Your task to perform on an android device: turn on data saver in the chrome app Image 0: 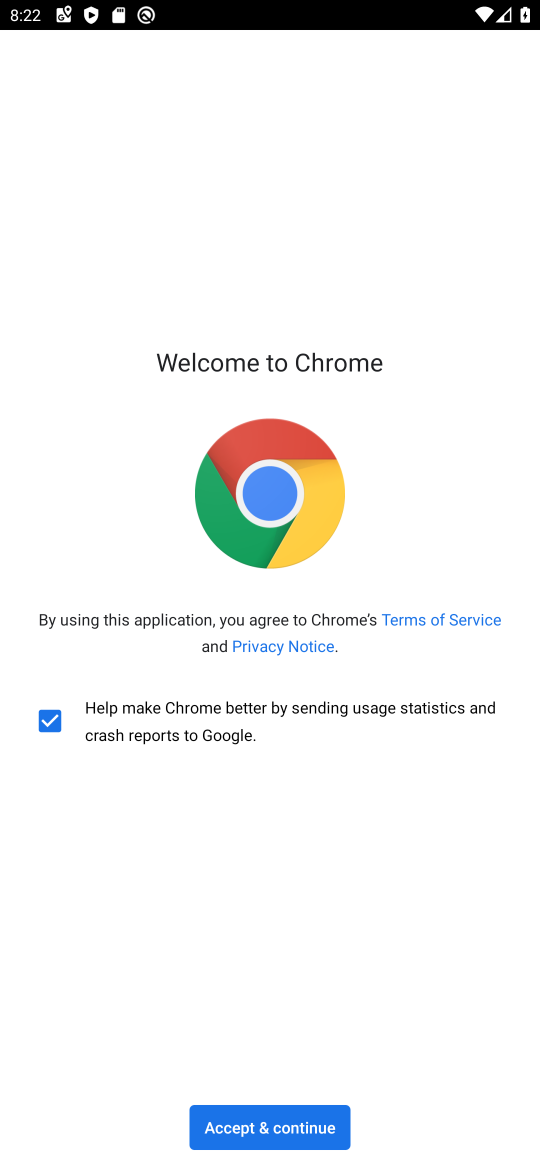
Step 0: press home button
Your task to perform on an android device: turn on data saver in the chrome app Image 1: 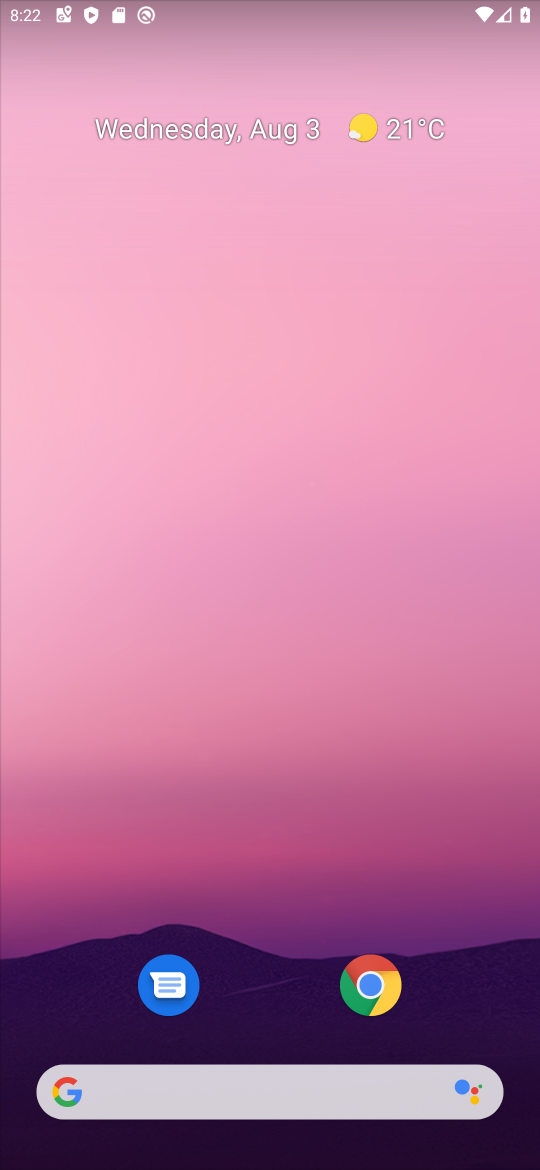
Step 1: click (347, 970)
Your task to perform on an android device: turn on data saver in the chrome app Image 2: 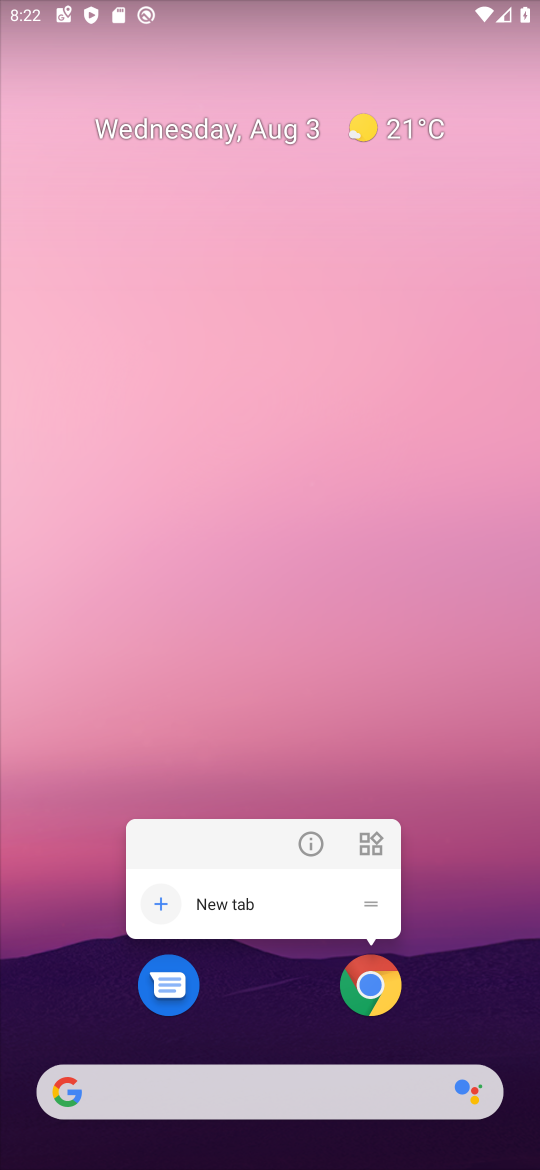
Step 2: click (349, 996)
Your task to perform on an android device: turn on data saver in the chrome app Image 3: 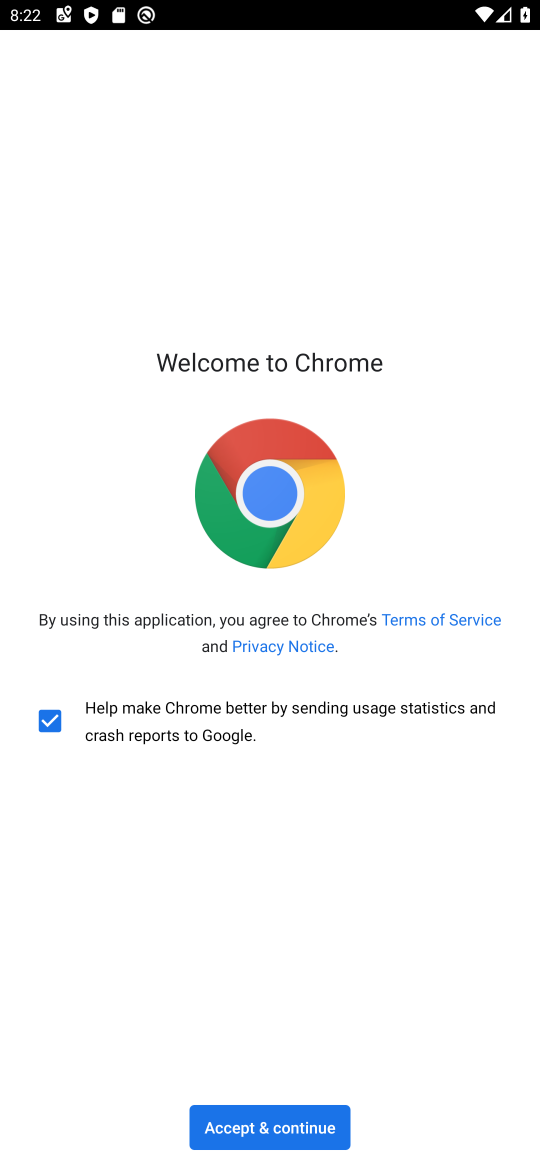
Step 3: click (302, 1131)
Your task to perform on an android device: turn on data saver in the chrome app Image 4: 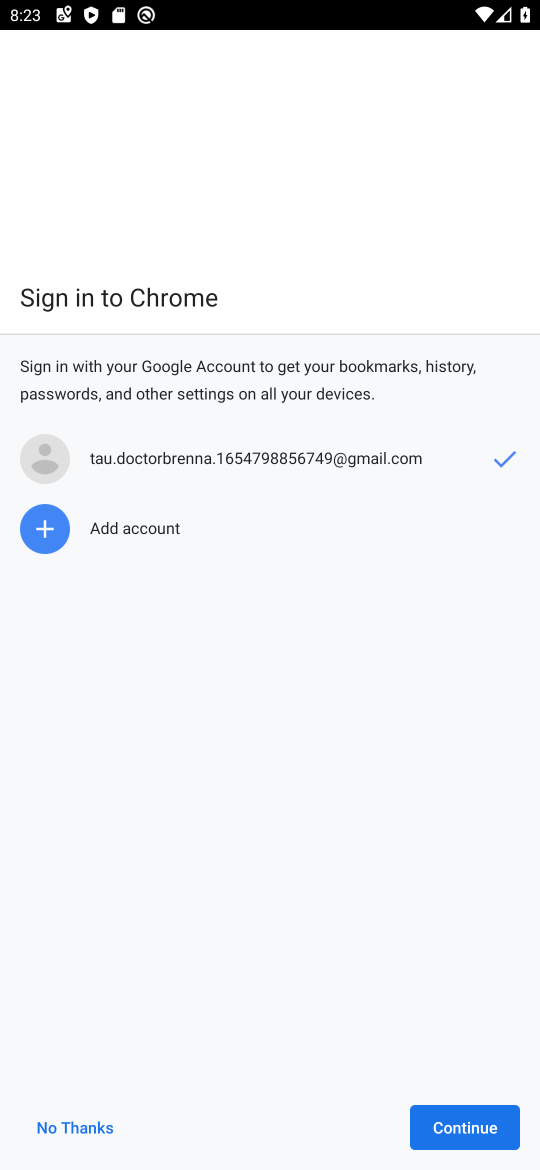
Step 4: click (416, 1122)
Your task to perform on an android device: turn on data saver in the chrome app Image 5: 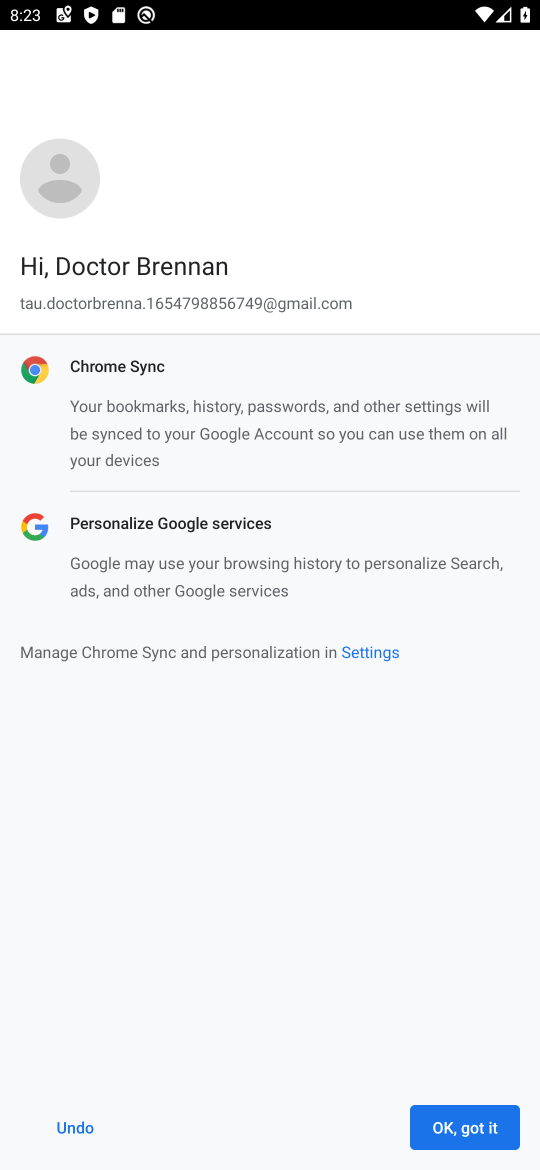
Step 5: click (452, 1115)
Your task to perform on an android device: turn on data saver in the chrome app Image 6: 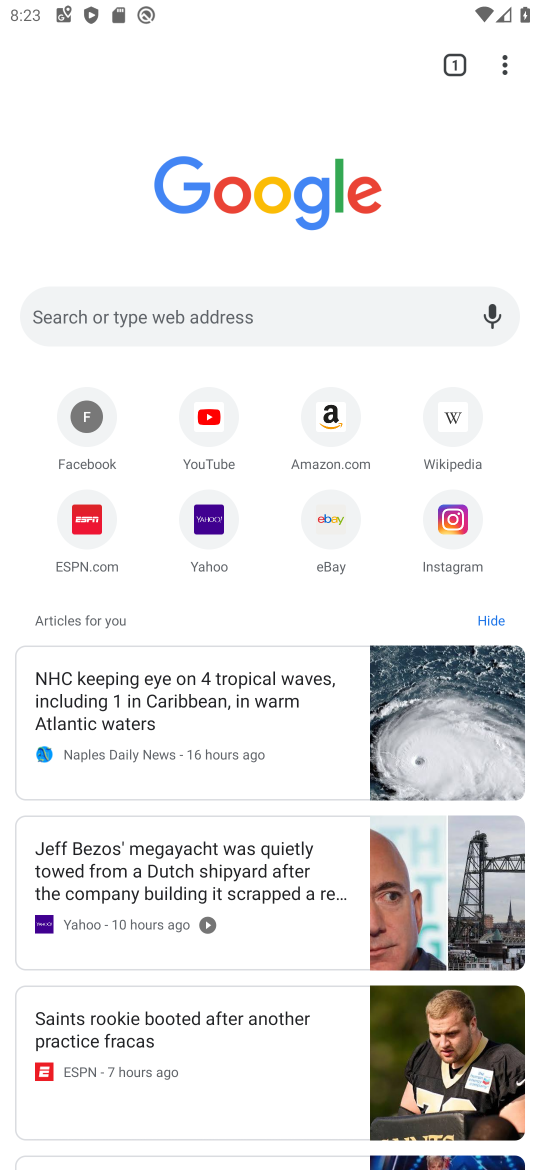
Step 6: click (497, 64)
Your task to perform on an android device: turn on data saver in the chrome app Image 7: 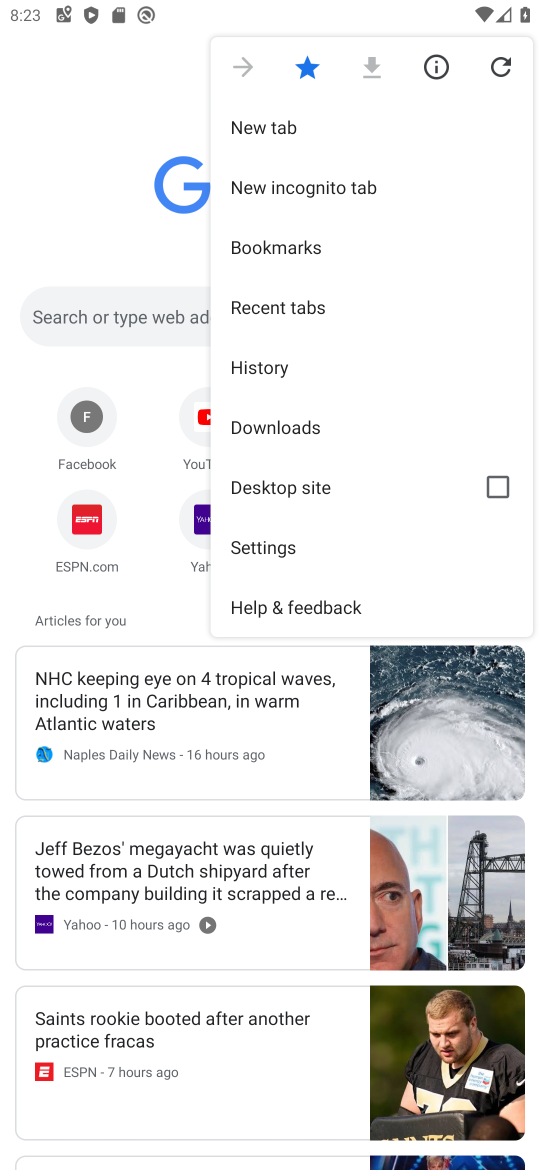
Step 7: click (261, 543)
Your task to perform on an android device: turn on data saver in the chrome app Image 8: 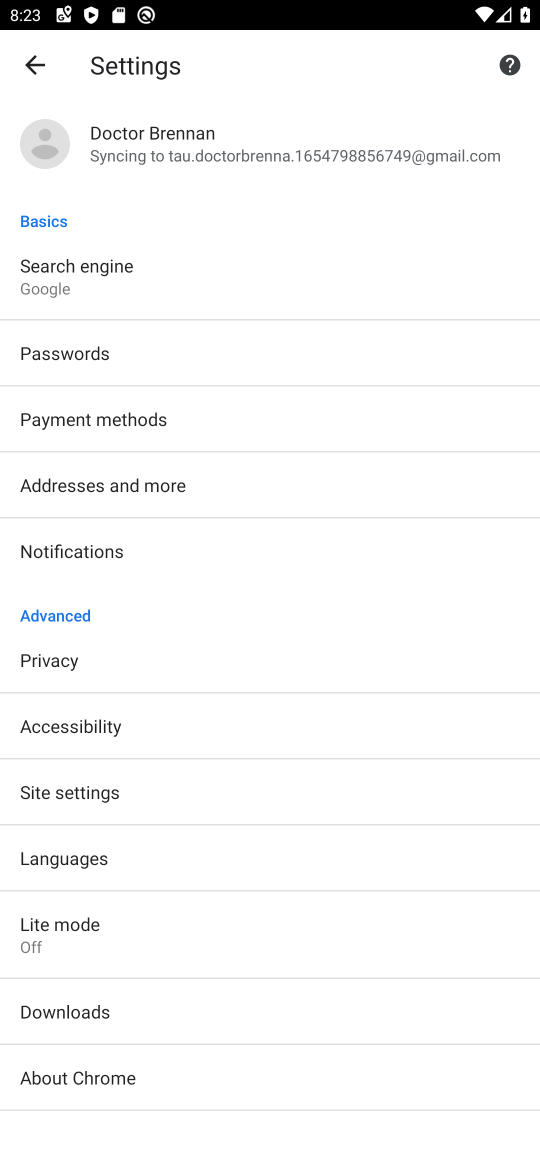
Step 8: click (185, 766)
Your task to perform on an android device: turn on data saver in the chrome app Image 9: 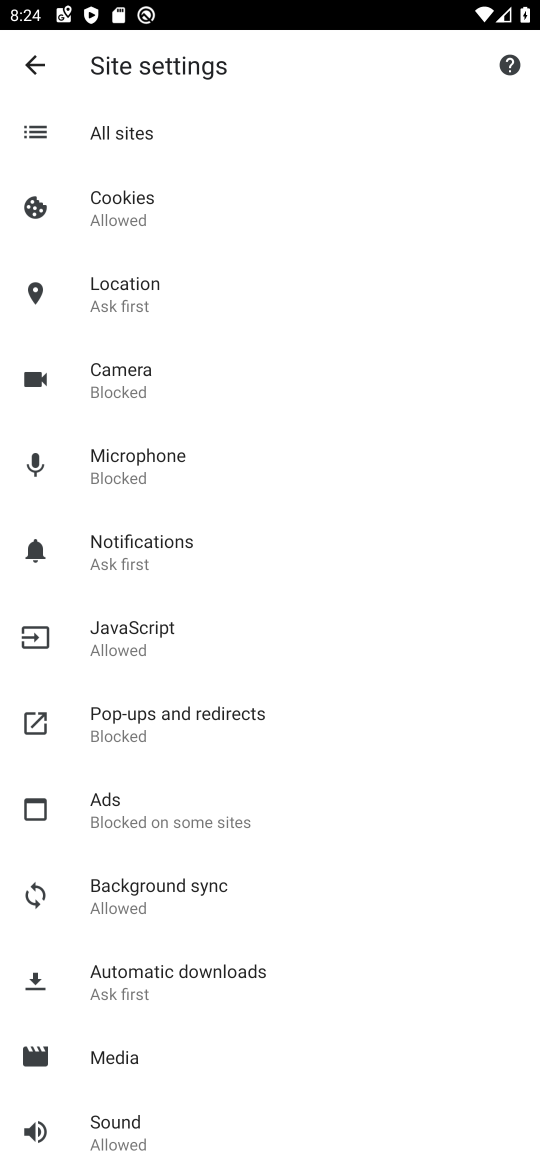
Step 9: click (27, 47)
Your task to perform on an android device: turn on data saver in the chrome app Image 10: 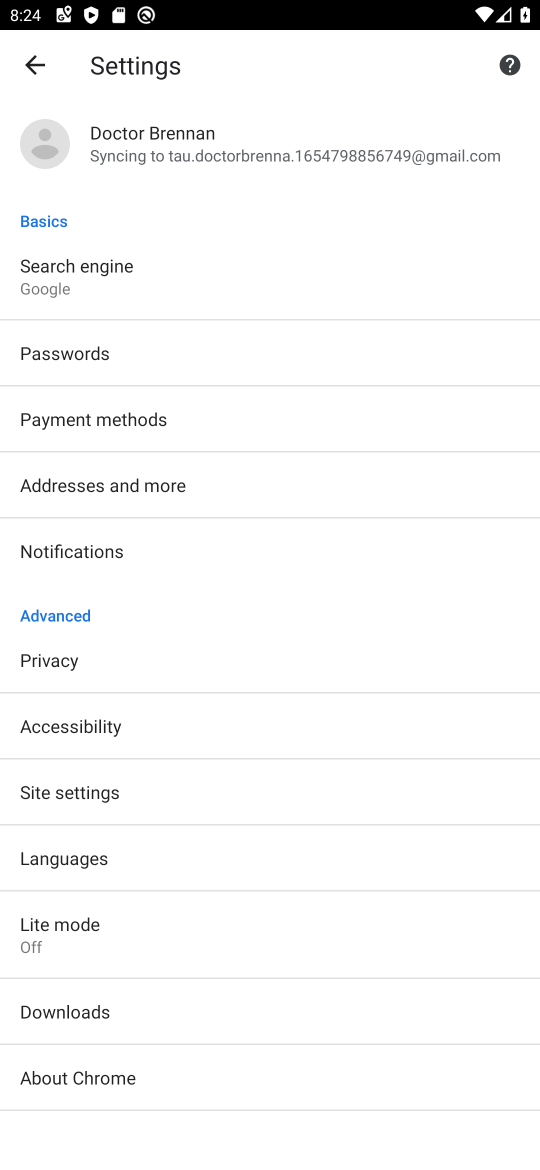
Step 10: click (127, 933)
Your task to perform on an android device: turn on data saver in the chrome app Image 11: 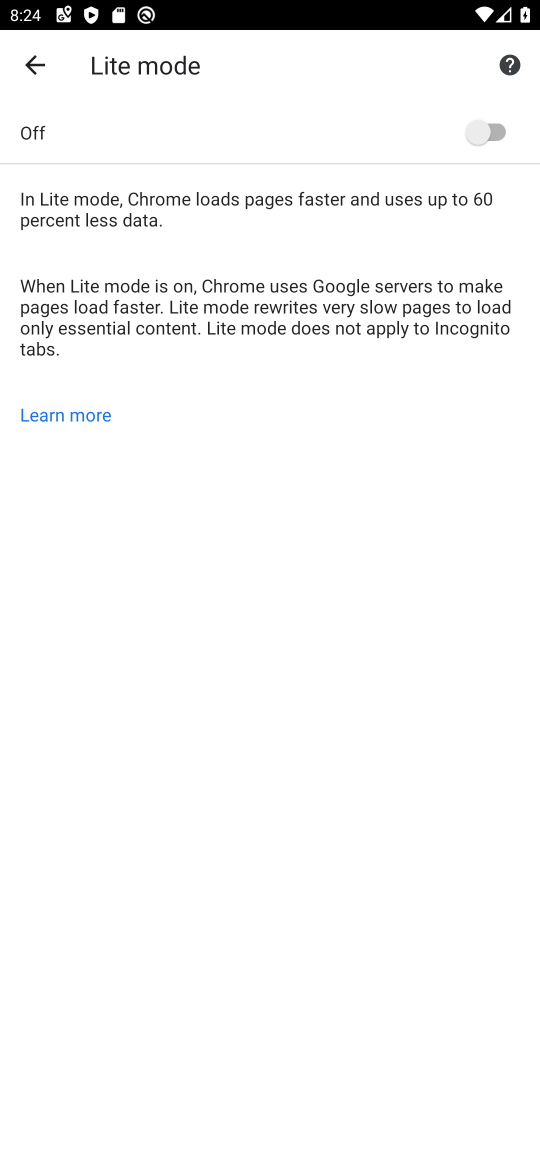
Step 11: click (491, 137)
Your task to perform on an android device: turn on data saver in the chrome app Image 12: 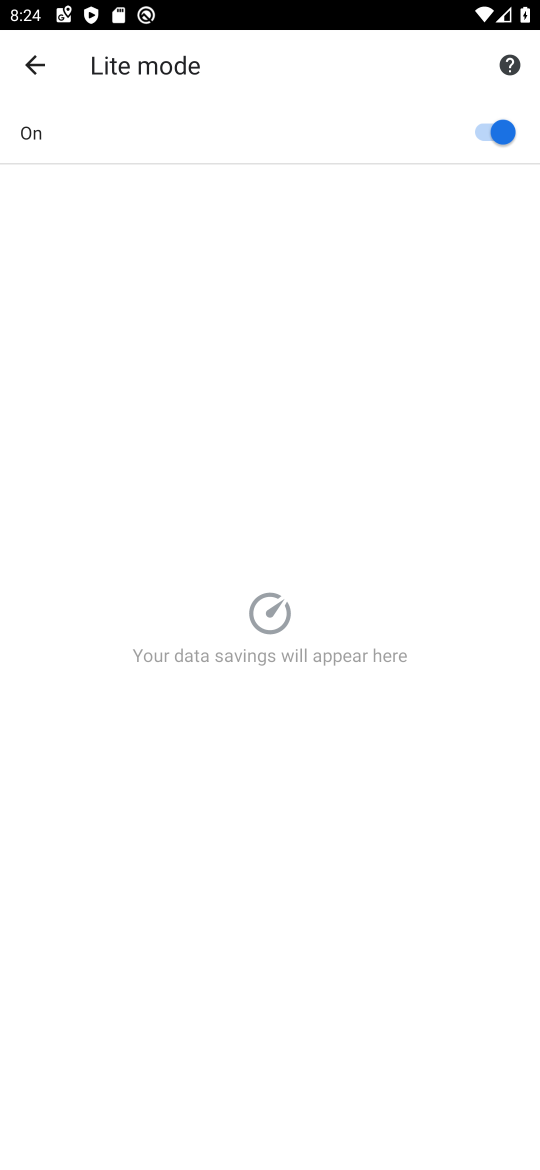
Step 12: task complete